Your task to perform on an android device: turn on bluetooth scan Image 0: 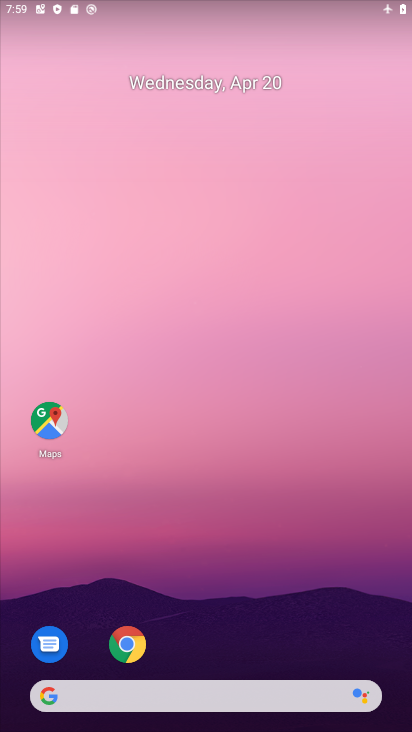
Step 0: drag from (336, 626) to (196, 68)
Your task to perform on an android device: turn on bluetooth scan Image 1: 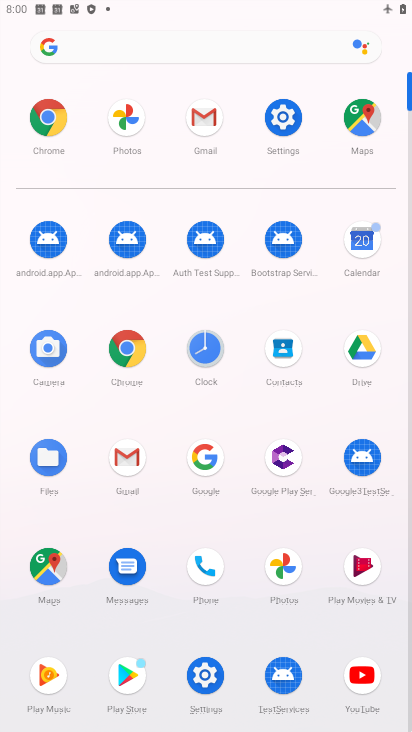
Step 1: click (279, 114)
Your task to perform on an android device: turn on bluetooth scan Image 2: 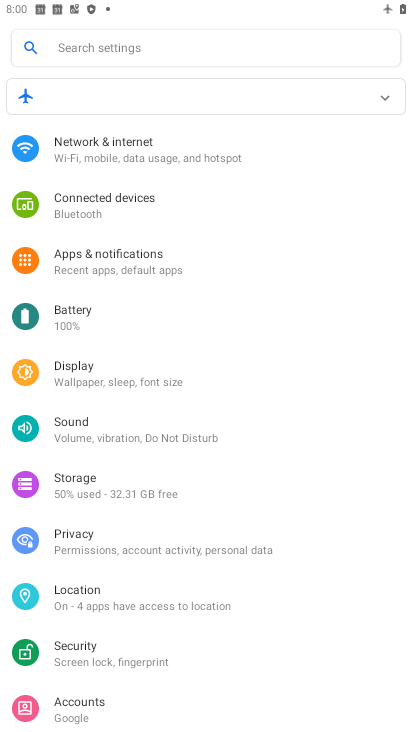
Step 2: click (134, 601)
Your task to perform on an android device: turn on bluetooth scan Image 3: 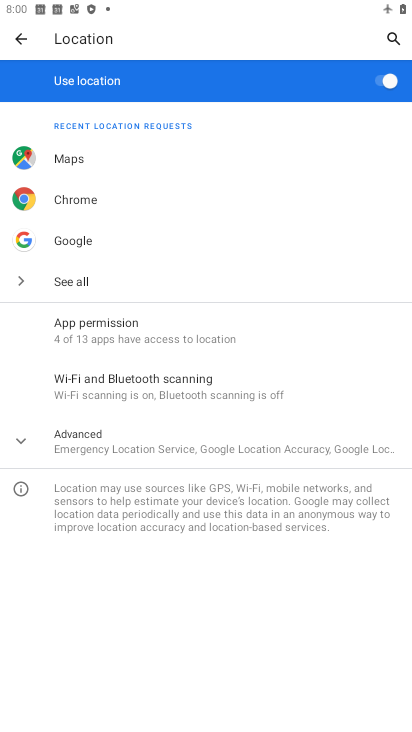
Step 3: click (194, 383)
Your task to perform on an android device: turn on bluetooth scan Image 4: 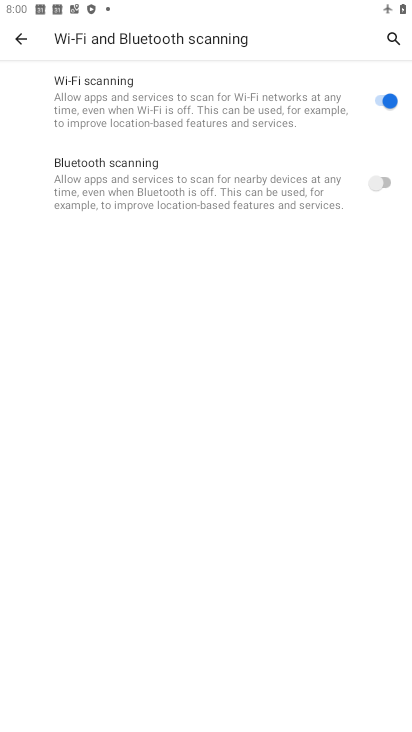
Step 4: click (358, 198)
Your task to perform on an android device: turn on bluetooth scan Image 5: 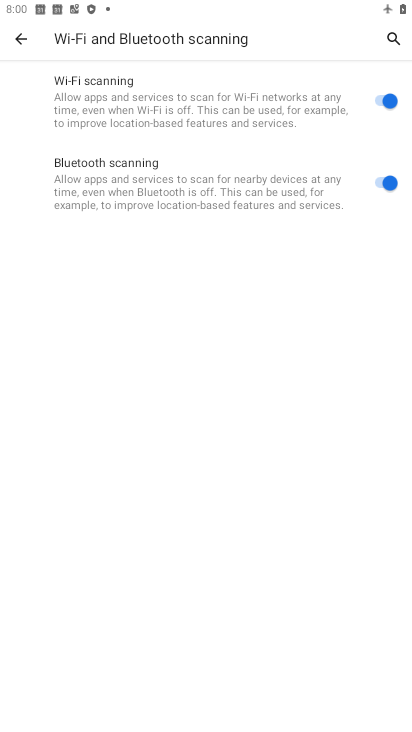
Step 5: task complete